Your task to perform on an android device: turn on location history Image 0: 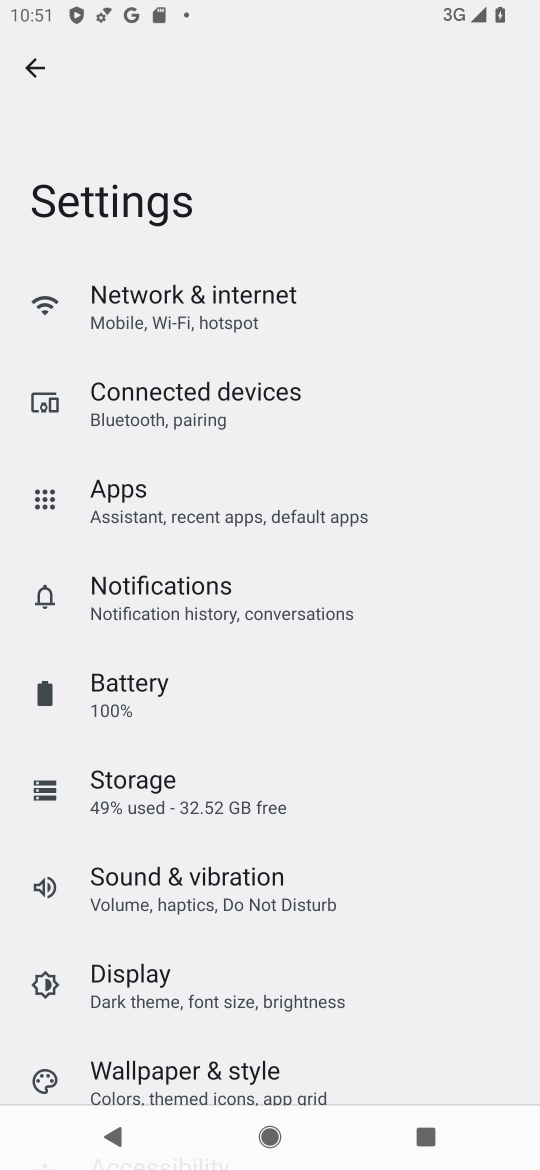
Step 0: drag from (532, 828) to (406, 213)
Your task to perform on an android device: turn on location history Image 1: 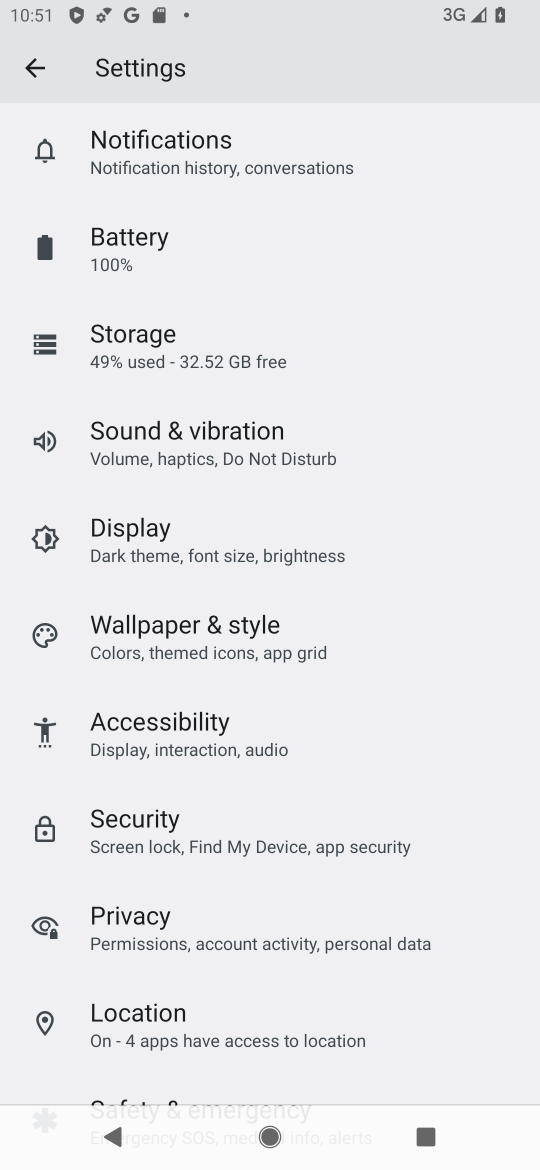
Step 1: click (228, 1023)
Your task to perform on an android device: turn on location history Image 2: 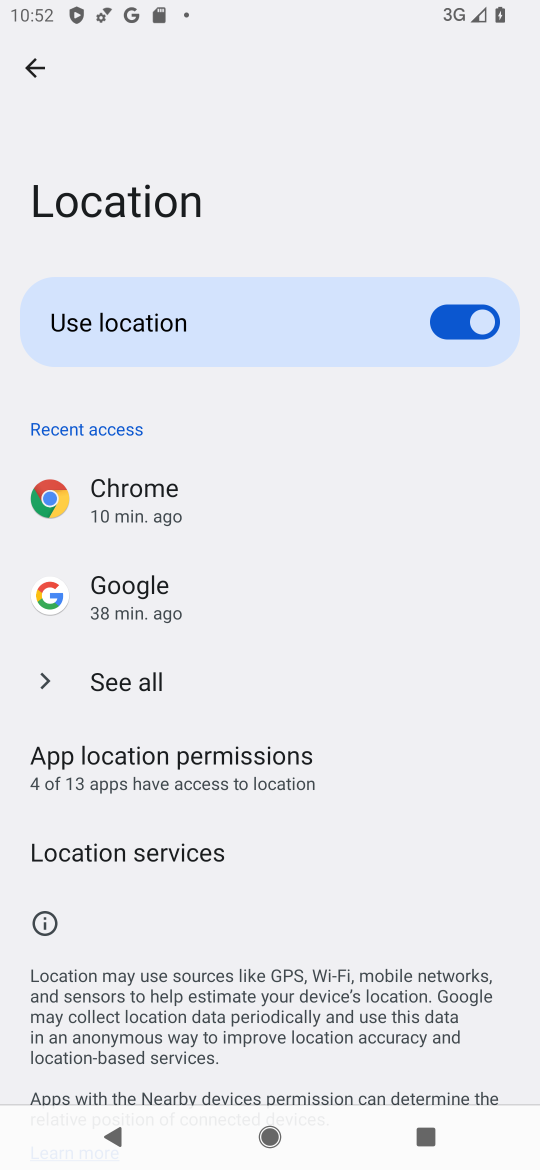
Step 2: task complete